Your task to perform on an android device: open app "McDonald's" (install if not already installed) and enter user name: "copes@yahoo.com" and password: "Rhenish" Image 0: 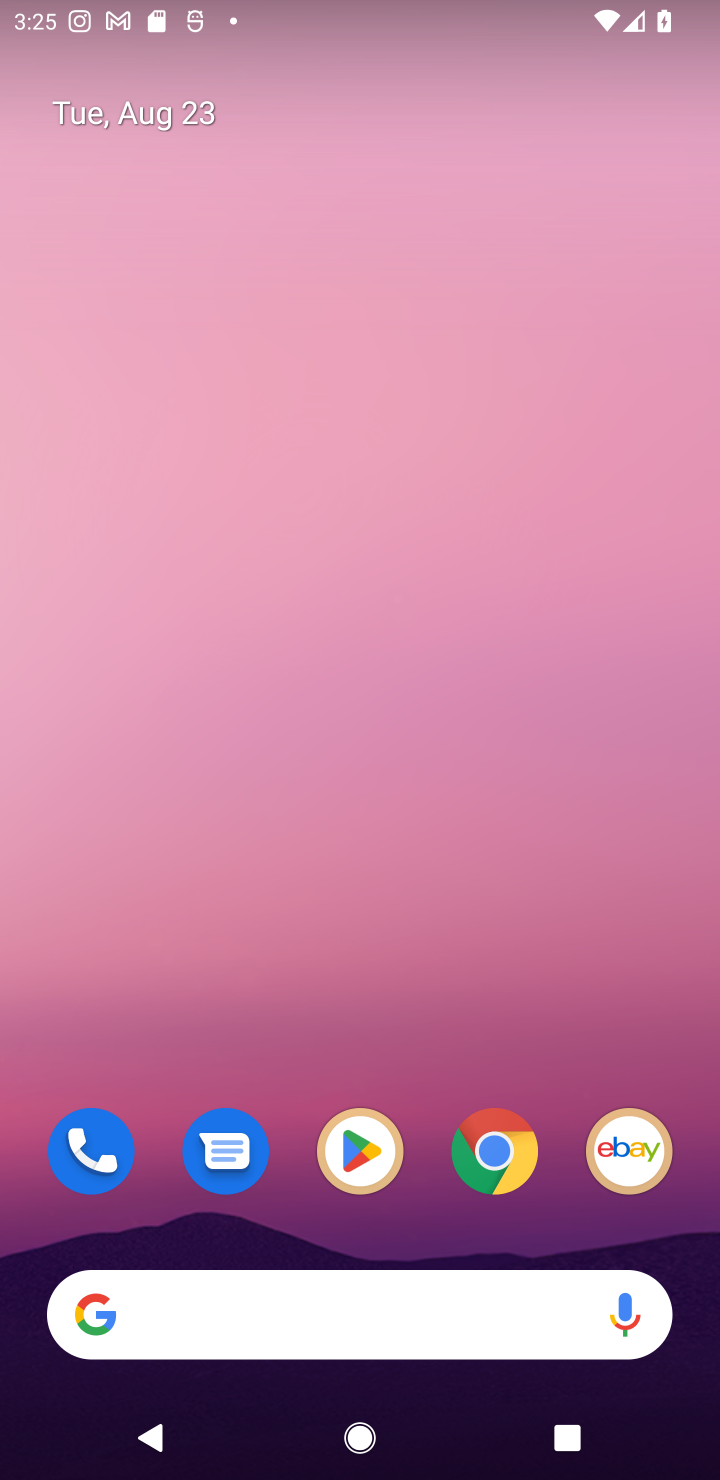
Step 0: click (351, 1145)
Your task to perform on an android device: open app "McDonald's" (install if not already installed) and enter user name: "copes@yahoo.com" and password: "Rhenish" Image 1: 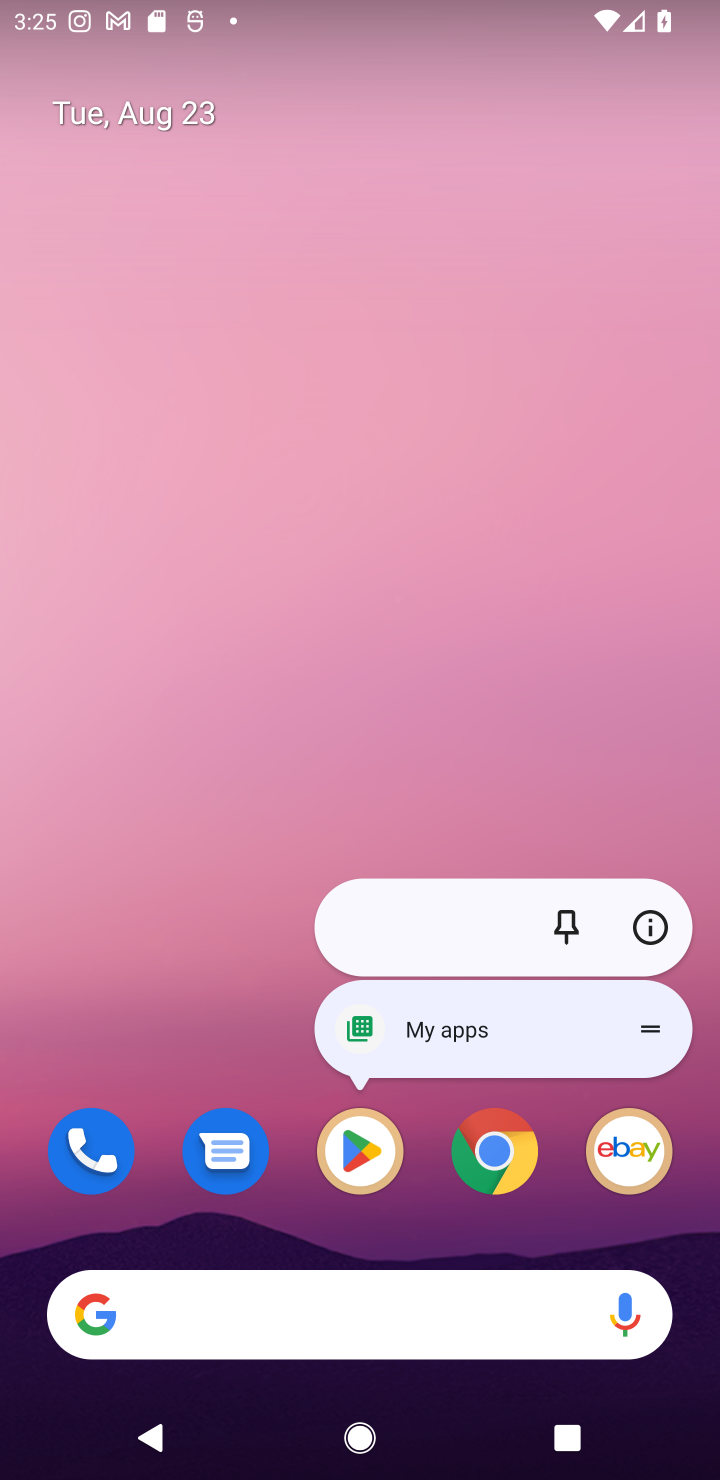
Step 1: click (351, 1156)
Your task to perform on an android device: open app "McDonald's" (install if not already installed) and enter user name: "copes@yahoo.com" and password: "Rhenish" Image 2: 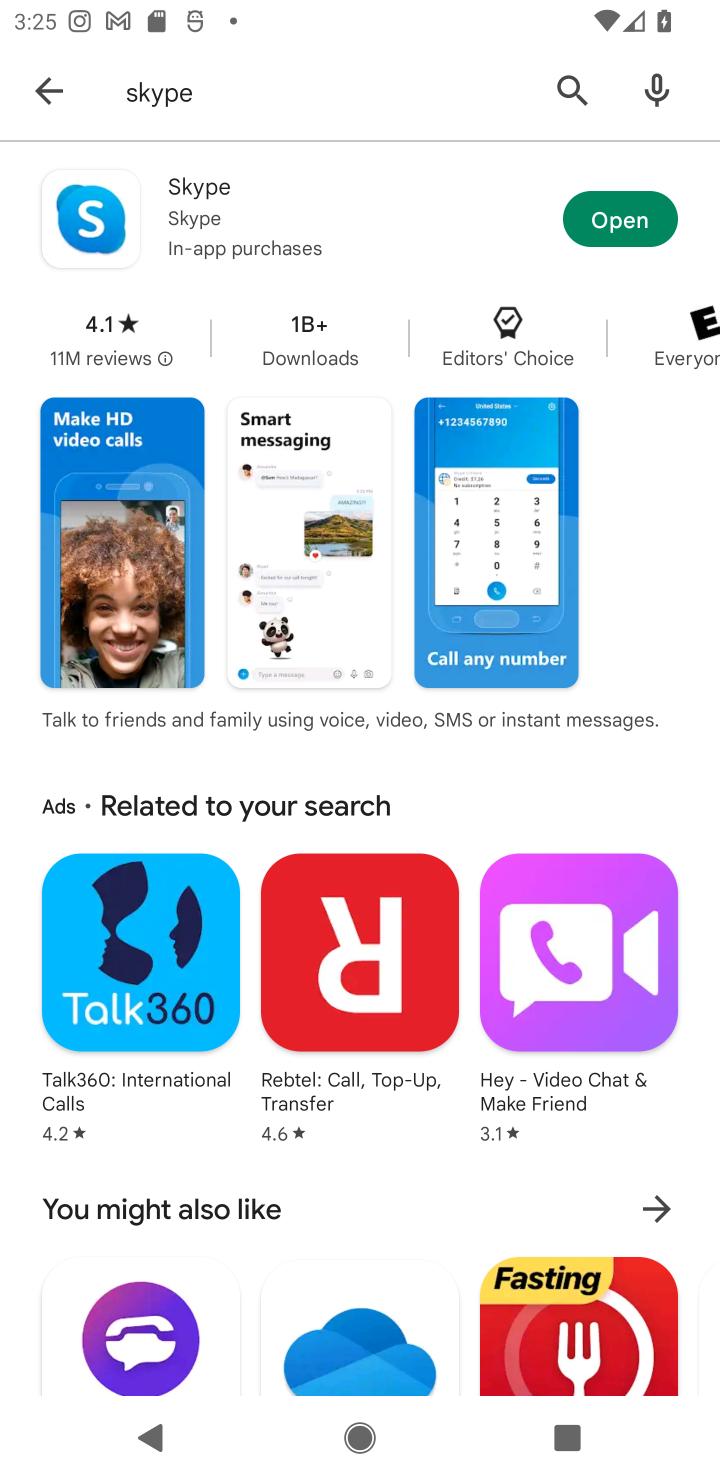
Step 2: click (576, 76)
Your task to perform on an android device: open app "McDonald's" (install if not already installed) and enter user name: "copes@yahoo.com" and password: "Rhenish" Image 3: 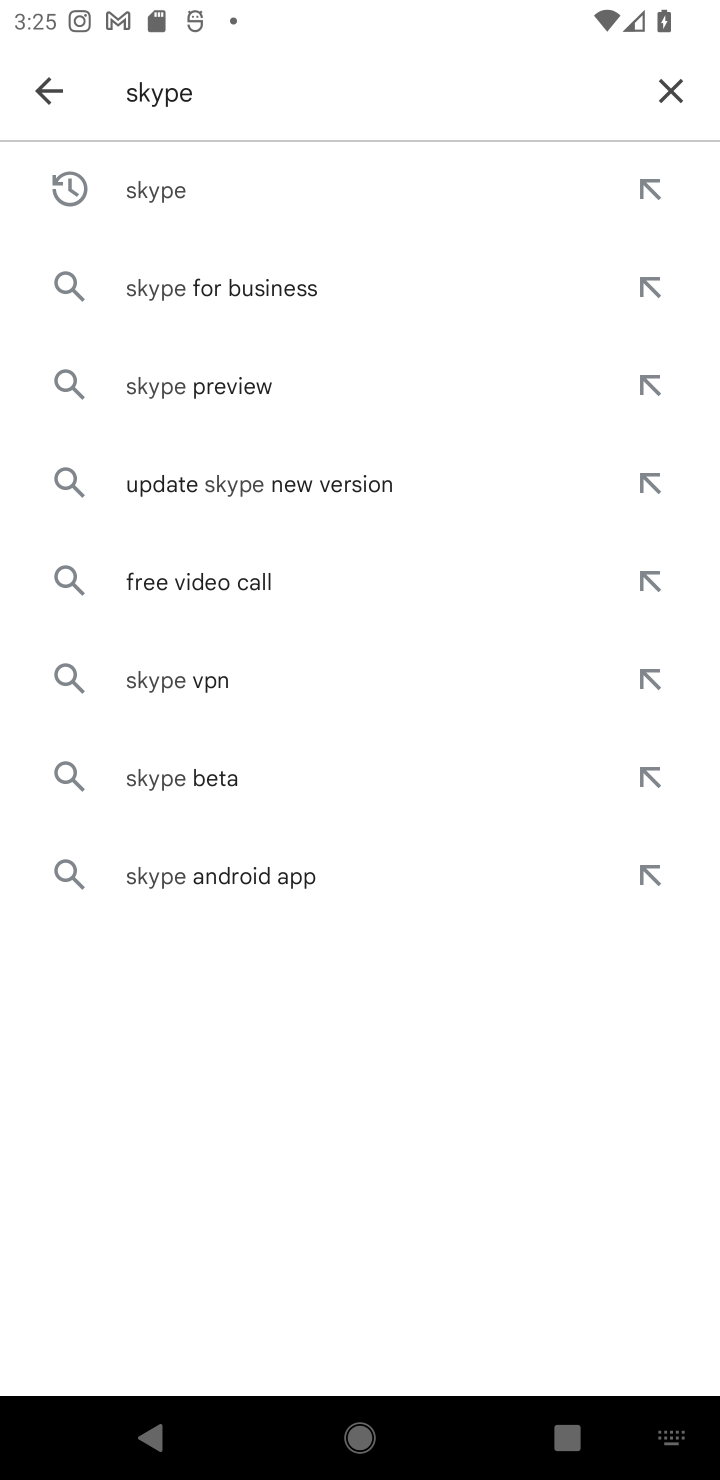
Step 3: click (675, 76)
Your task to perform on an android device: open app "McDonald's" (install if not already installed) and enter user name: "copes@yahoo.com" and password: "Rhenish" Image 4: 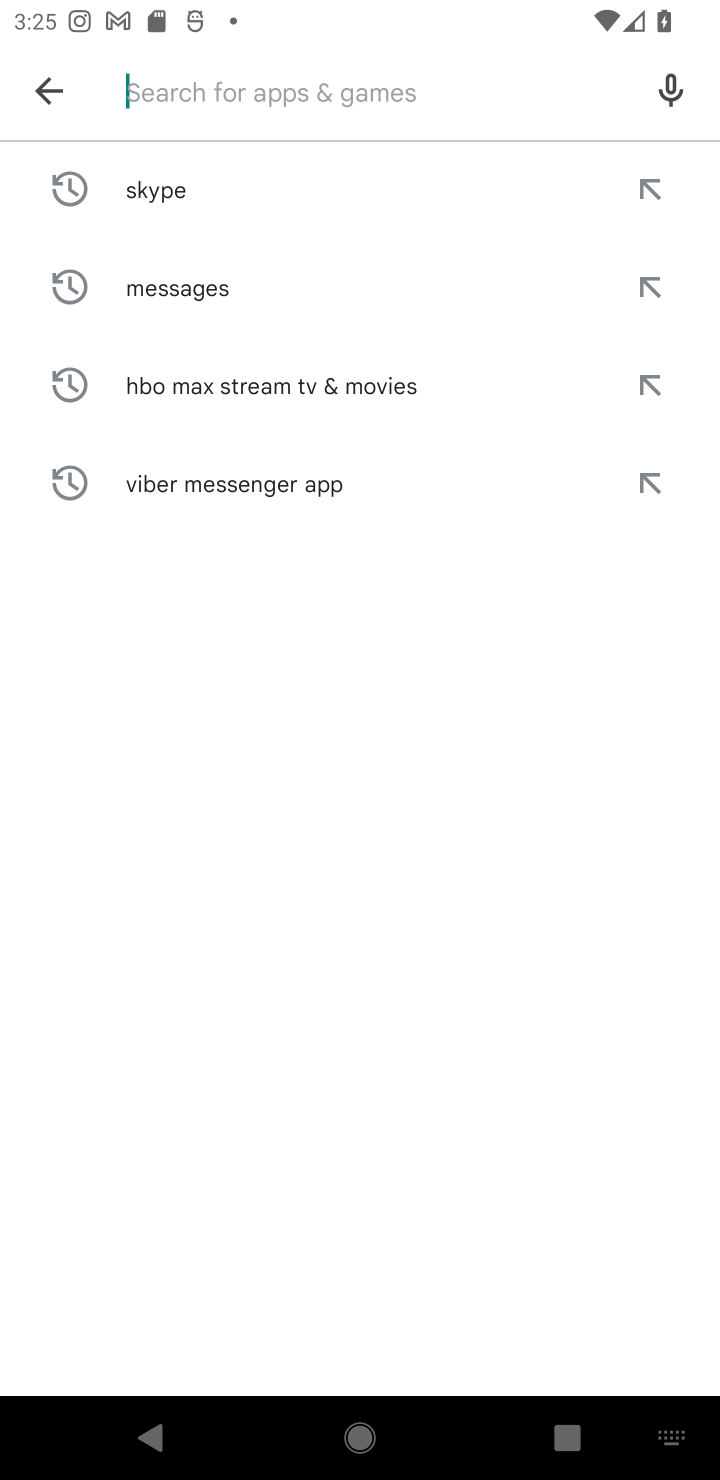
Step 4: type "McDonald's"
Your task to perform on an android device: open app "McDonald's" (install if not already installed) and enter user name: "copes@yahoo.com" and password: "Rhenish" Image 5: 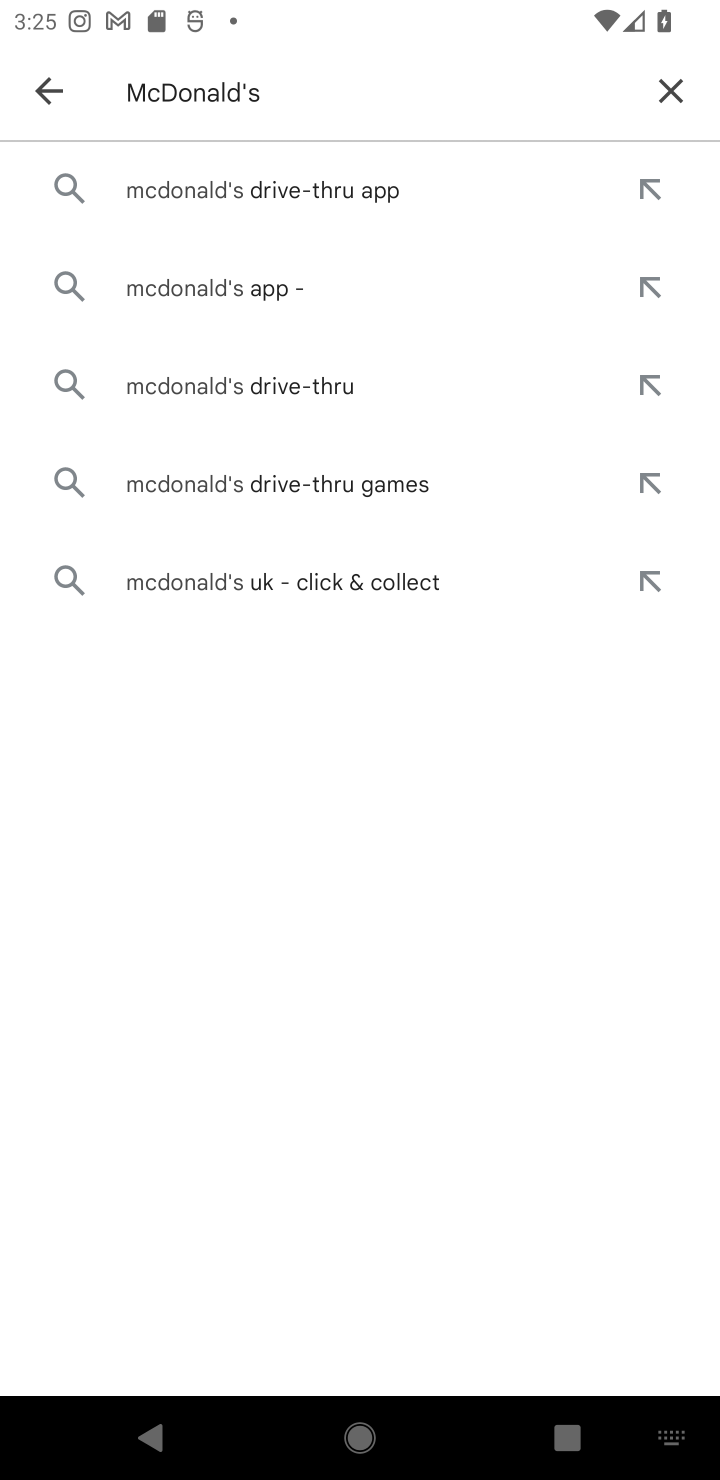
Step 5: click (243, 205)
Your task to perform on an android device: open app "McDonald's" (install if not already installed) and enter user name: "copes@yahoo.com" and password: "Rhenish" Image 6: 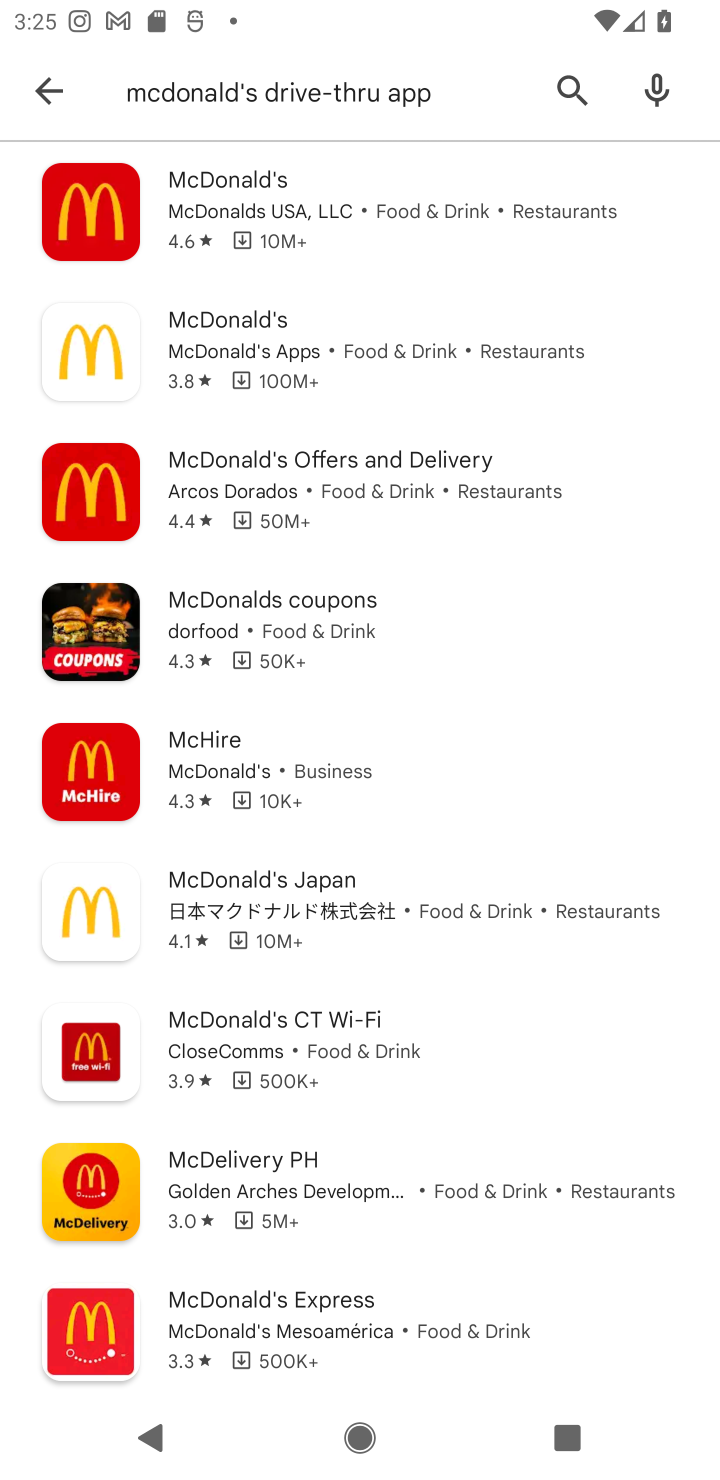
Step 6: click (305, 216)
Your task to perform on an android device: open app "McDonald's" (install if not already installed) and enter user name: "copes@yahoo.com" and password: "Rhenish" Image 7: 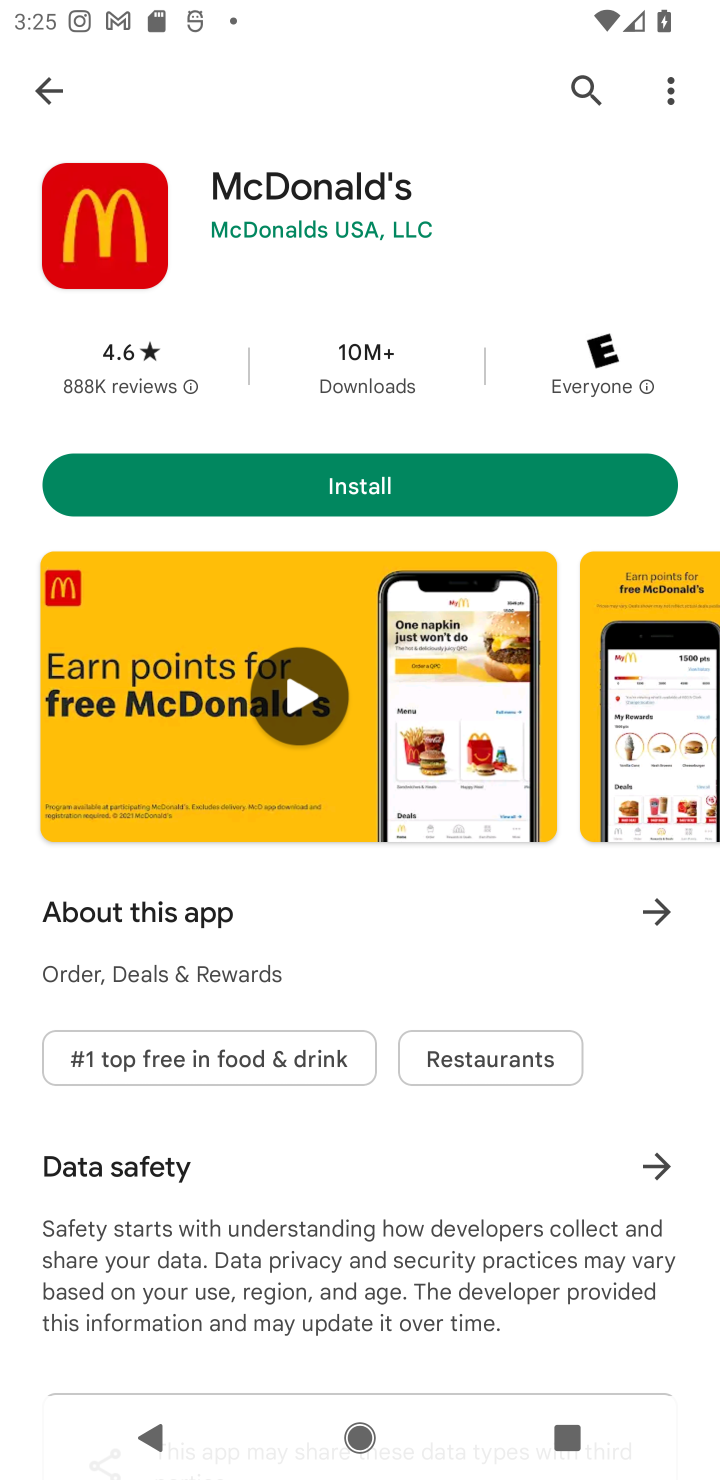
Step 7: click (456, 492)
Your task to perform on an android device: open app "McDonald's" (install if not already installed) and enter user name: "copes@yahoo.com" and password: "Rhenish" Image 8: 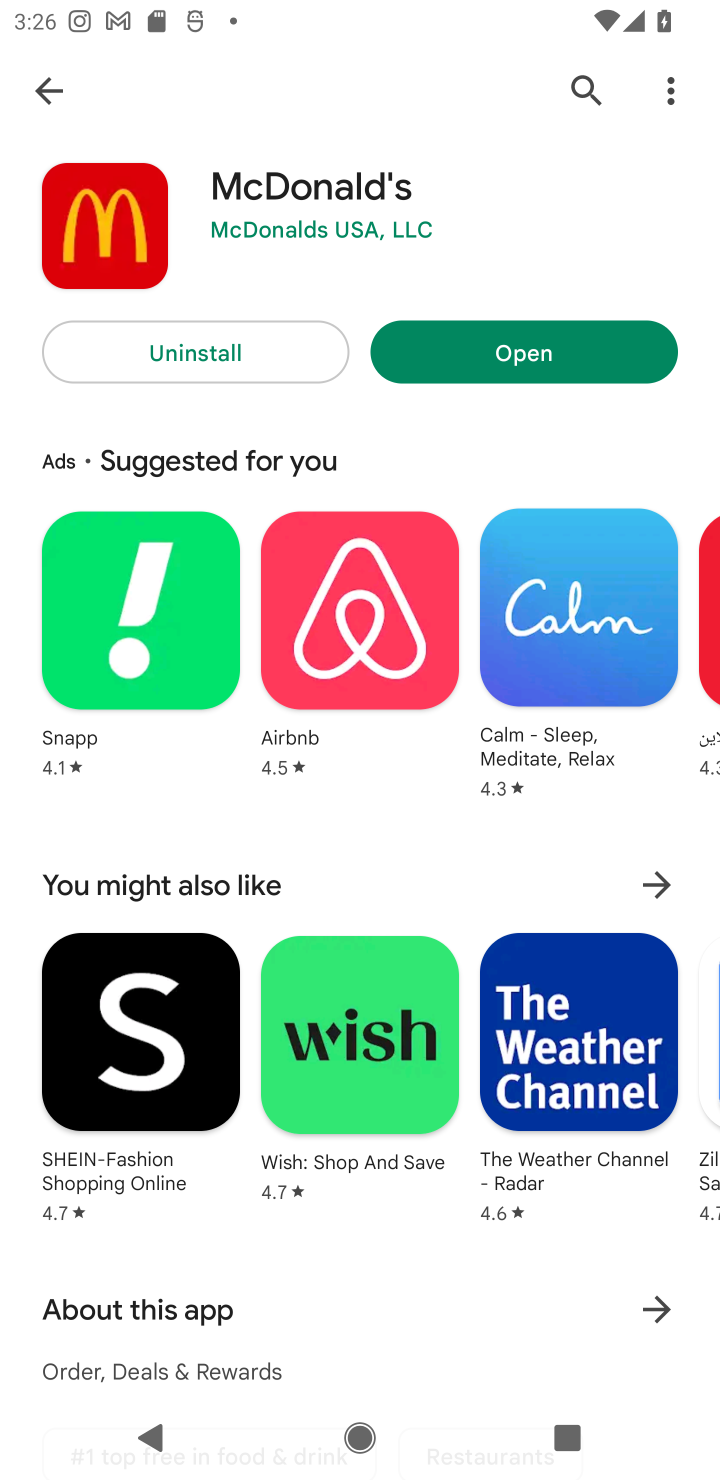
Step 8: click (538, 353)
Your task to perform on an android device: open app "McDonald's" (install if not already installed) and enter user name: "copes@yahoo.com" and password: "Rhenish" Image 9: 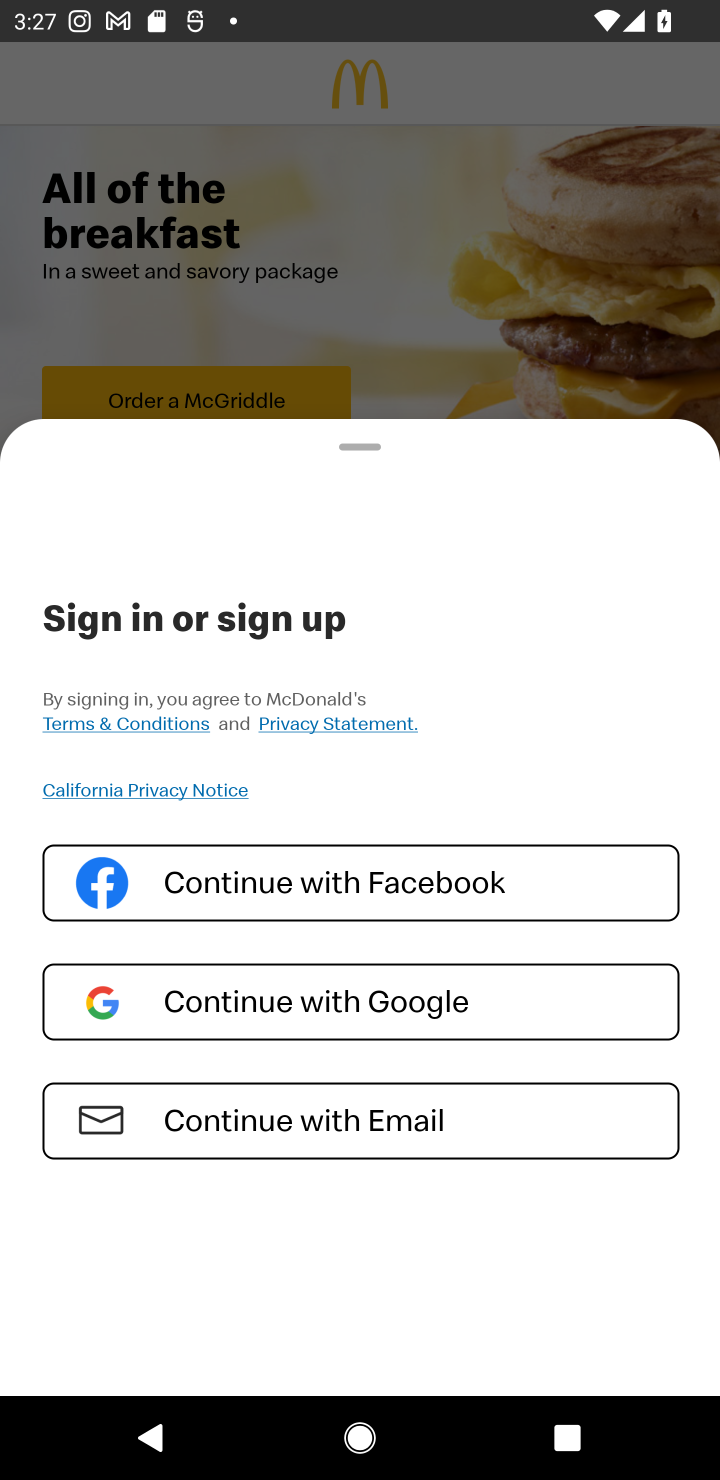
Step 9: click (380, 1118)
Your task to perform on an android device: open app "McDonald's" (install if not already installed) and enter user name: "copes@yahoo.com" and password: "Rhenish" Image 10: 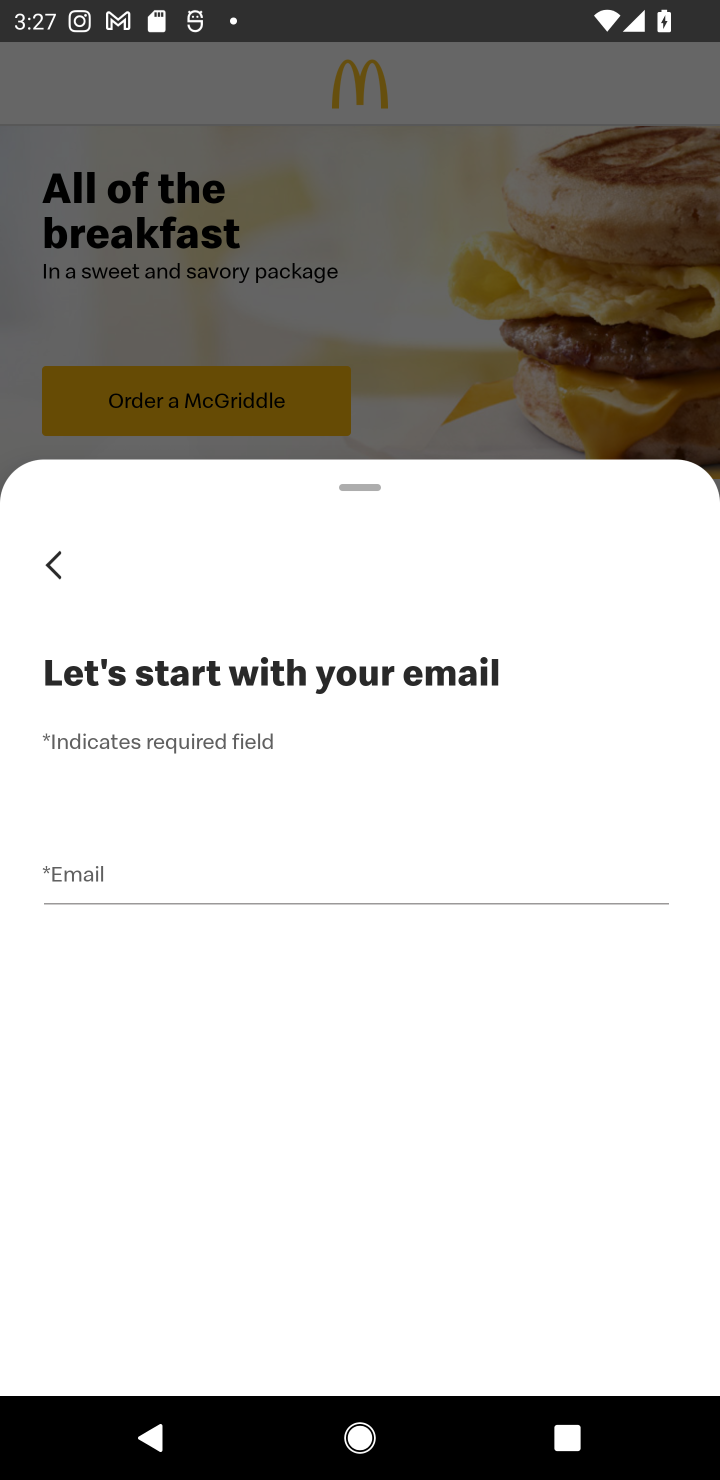
Step 10: click (108, 878)
Your task to perform on an android device: open app "McDonald's" (install if not already installed) and enter user name: "copes@yahoo.com" and password: "Rhenish" Image 11: 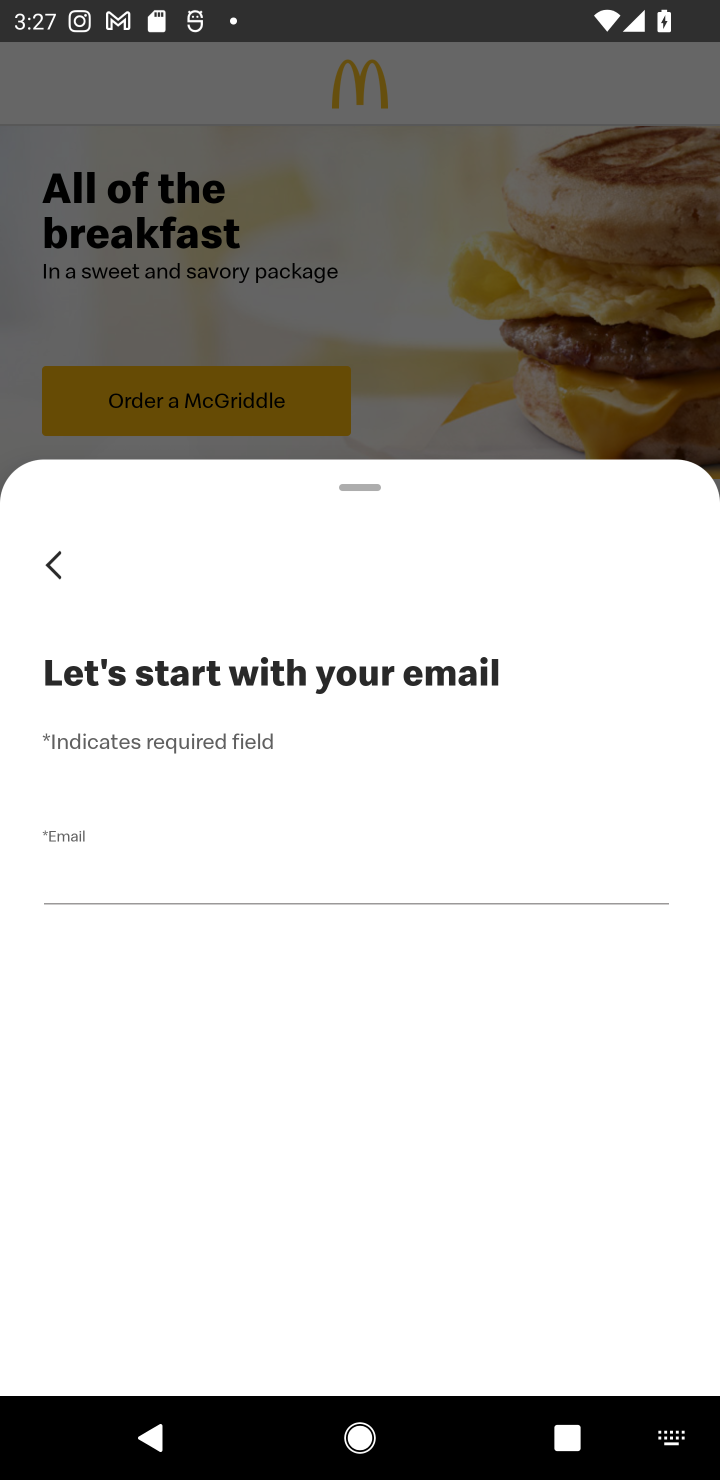
Step 11: type "copes@yahoo.com"
Your task to perform on an android device: open app "McDonald's" (install if not already installed) and enter user name: "copes@yahoo.com" and password: "Rhenish" Image 12: 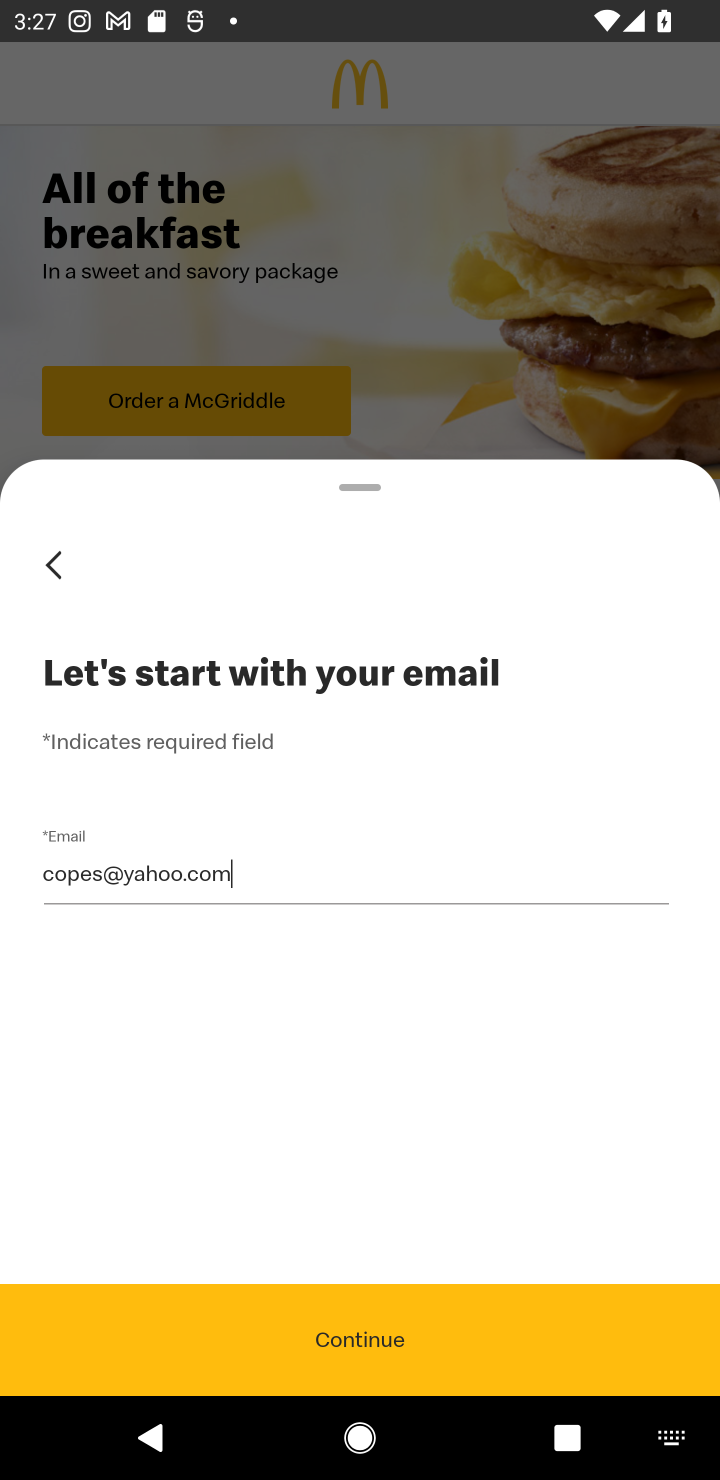
Step 12: click (339, 1334)
Your task to perform on an android device: open app "McDonald's" (install if not already installed) and enter user name: "copes@yahoo.com" and password: "Rhenish" Image 13: 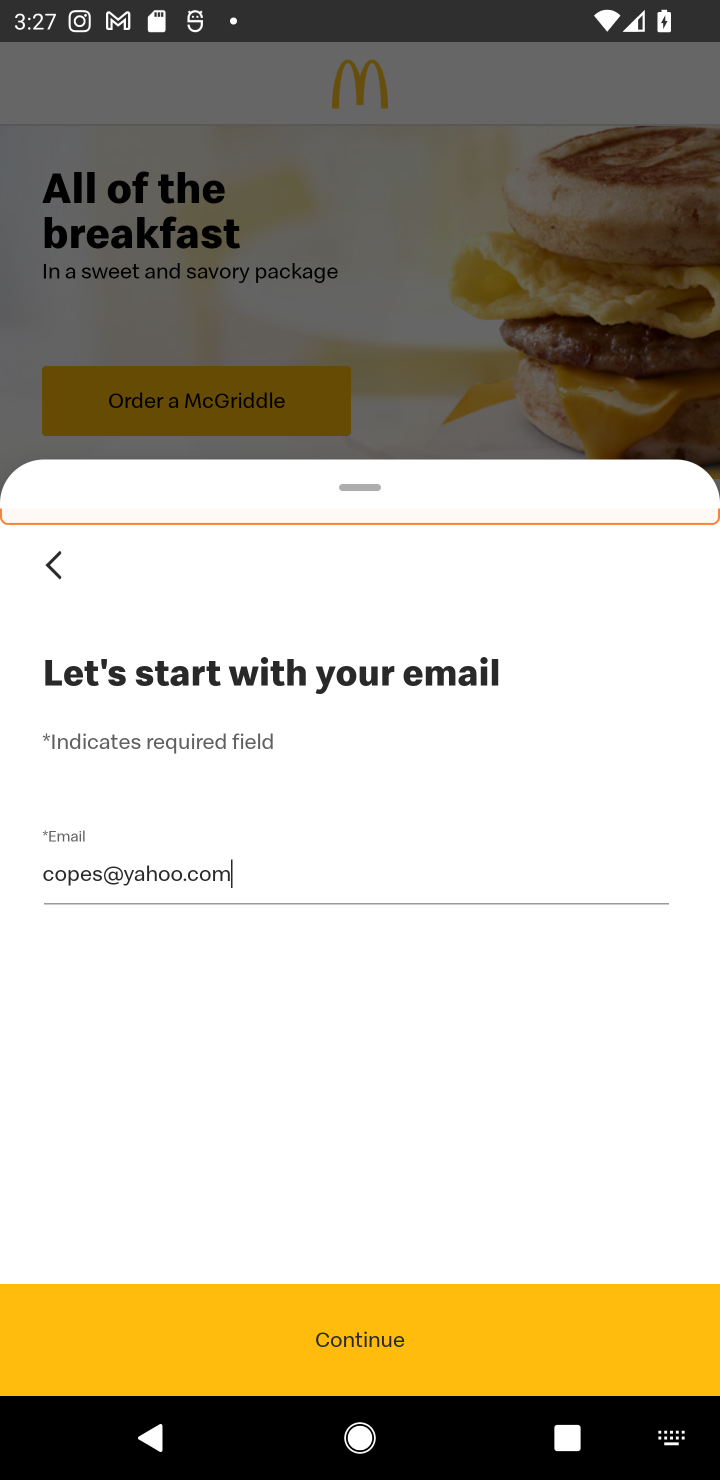
Step 13: task complete